Your task to perform on an android device: empty trash in google photos Image 0: 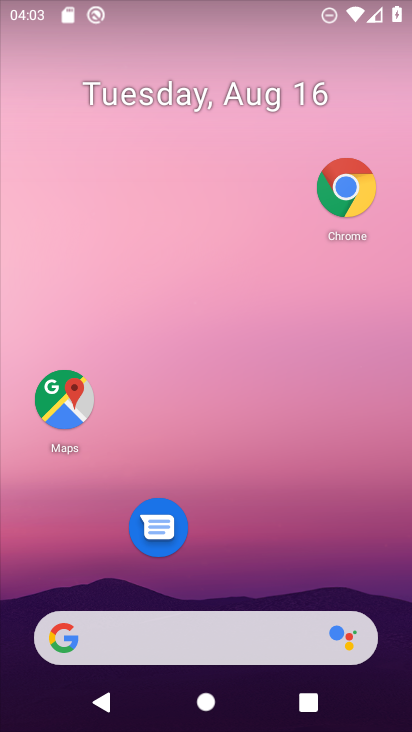
Step 0: press home button
Your task to perform on an android device: empty trash in google photos Image 1: 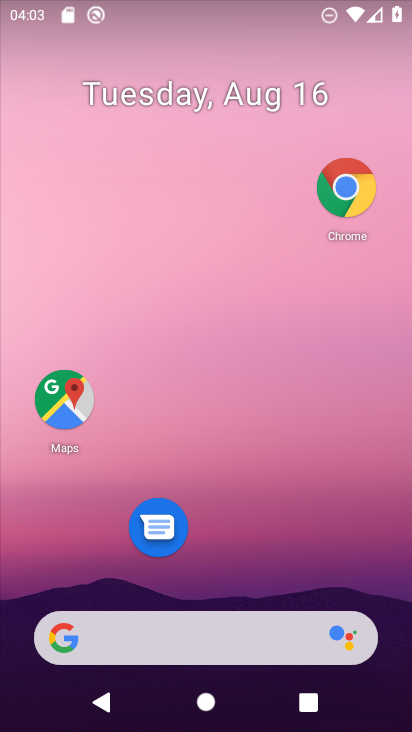
Step 1: drag from (216, 577) to (259, 112)
Your task to perform on an android device: empty trash in google photos Image 2: 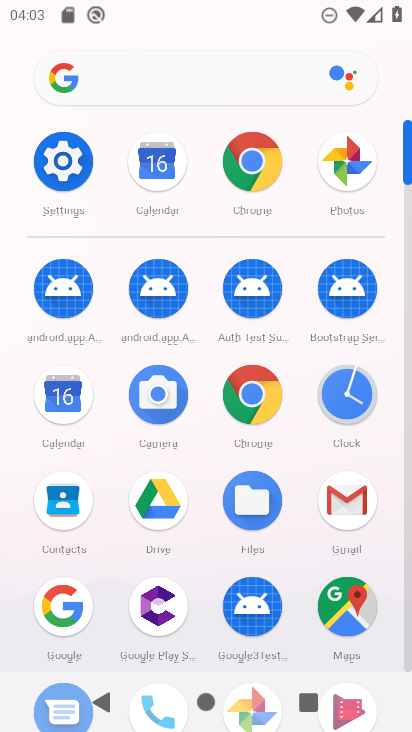
Step 2: drag from (201, 654) to (242, 320)
Your task to perform on an android device: empty trash in google photos Image 3: 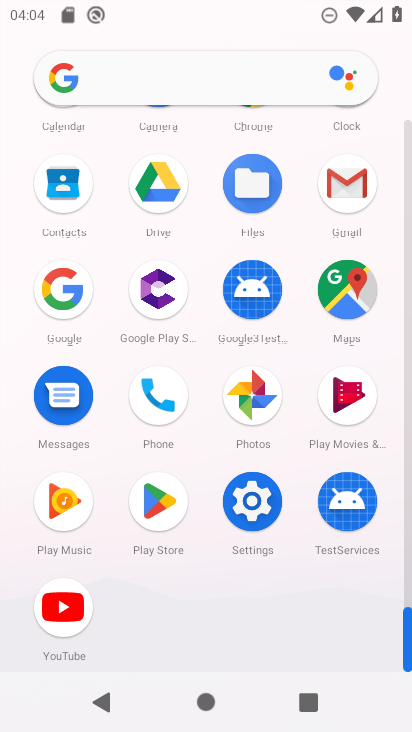
Step 3: click (247, 387)
Your task to perform on an android device: empty trash in google photos Image 4: 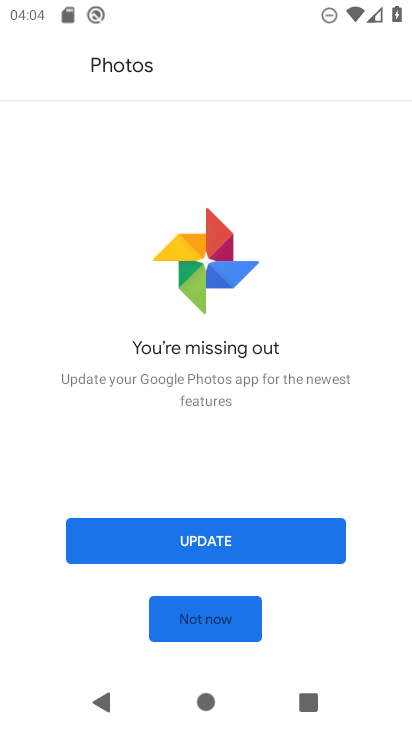
Step 4: click (202, 622)
Your task to perform on an android device: empty trash in google photos Image 5: 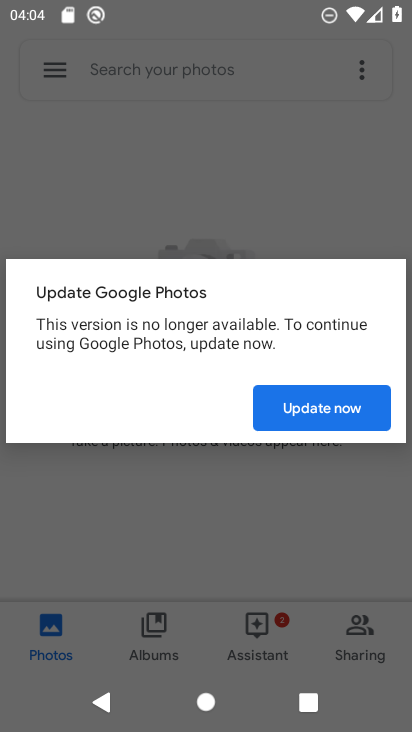
Step 5: press back button
Your task to perform on an android device: empty trash in google photos Image 6: 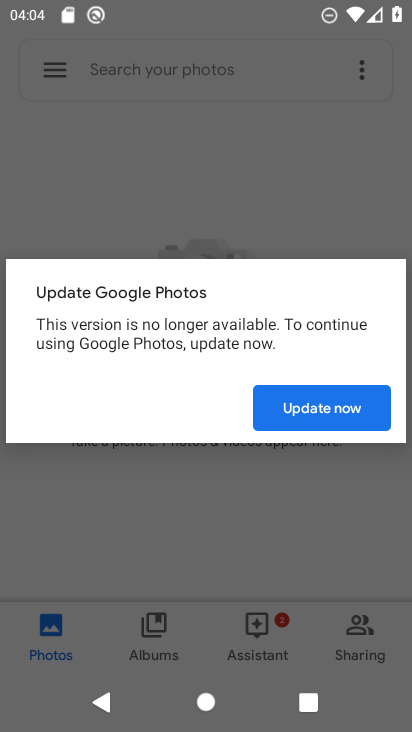
Step 6: click (176, 587)
Your task to perform on an android device: empty trash in google photos Image 7: 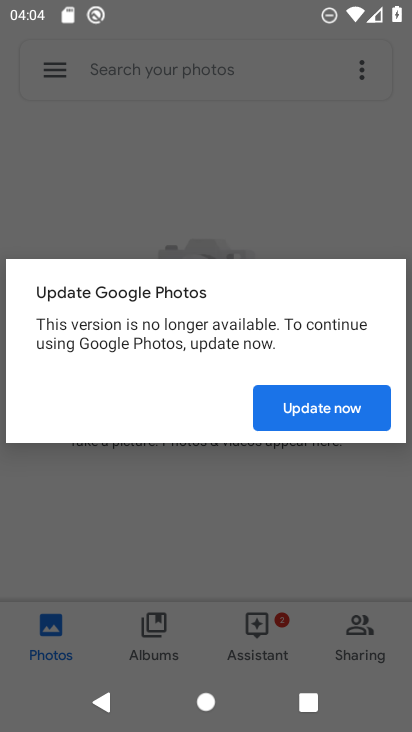
Step 7: task complete